Your task to perform on an android device: Check the weather Image 0: 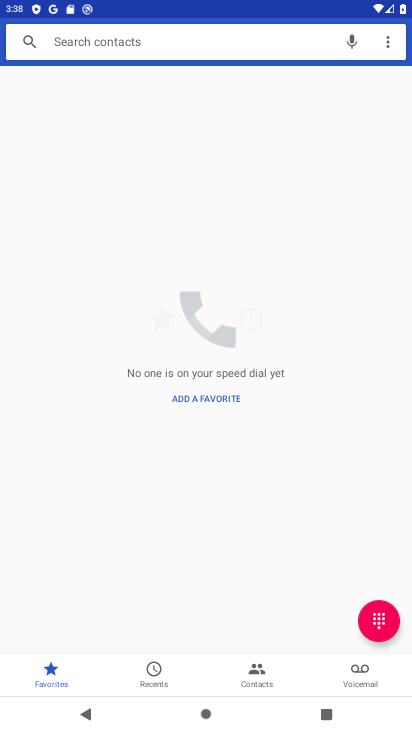
Step 0: press home button
Your task to perform on an android device: Check the weather Image 1: 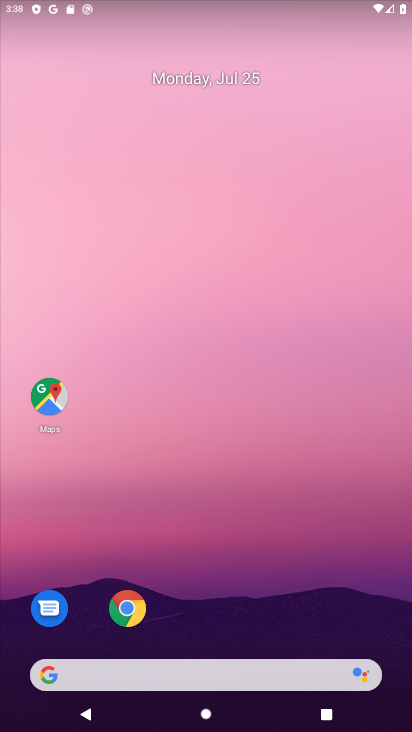
Step 1: click (123, 603)
Your task to perform on an android device: Check the weather Image 2: 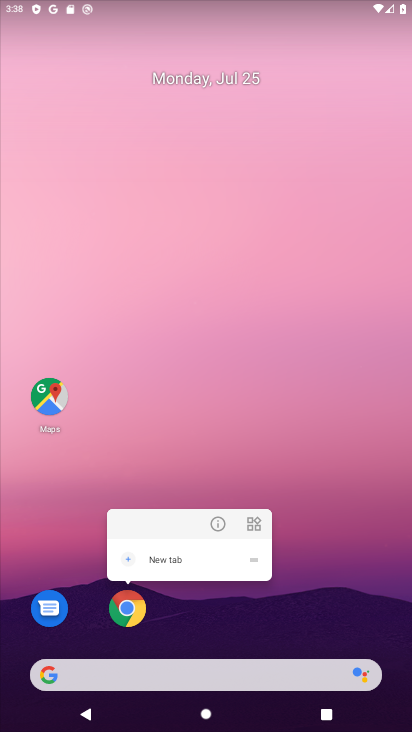
Step 2: click (123, 603)
Your task to perform on an android device: Check the weather Image 3: 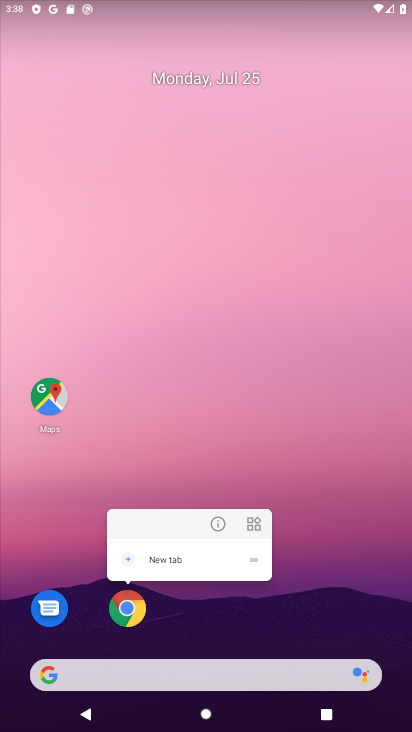
Step 3: click (123, 603)
Your task to perform on an android device: Check the weather Image 4: 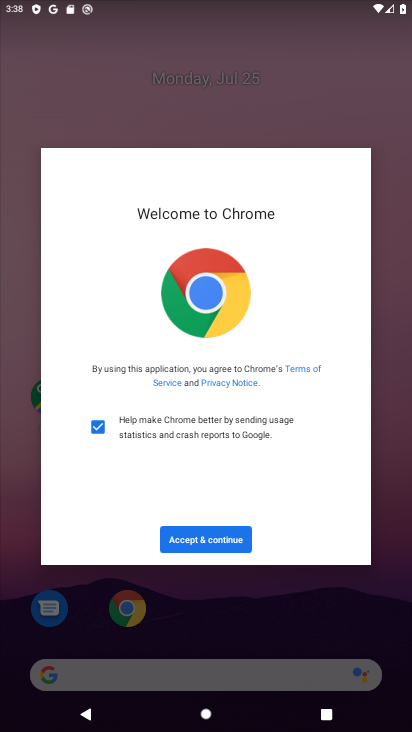
Step 4: click (203, 534)
Your task to perform on an android device: Check the weather Image 5: 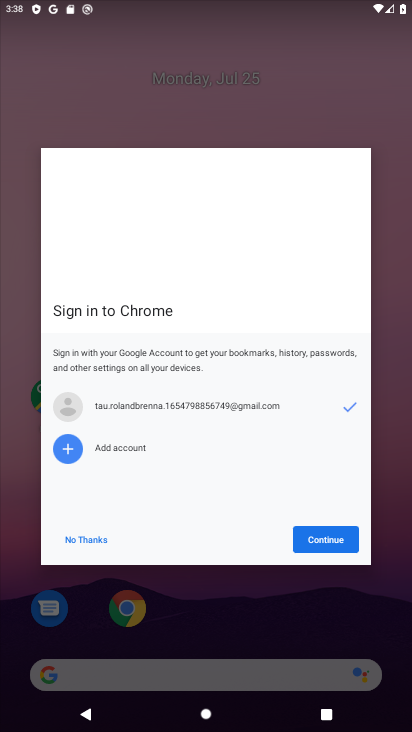
Step 5: press home button
Your task to perform on an android device: Check the weather Image 6: 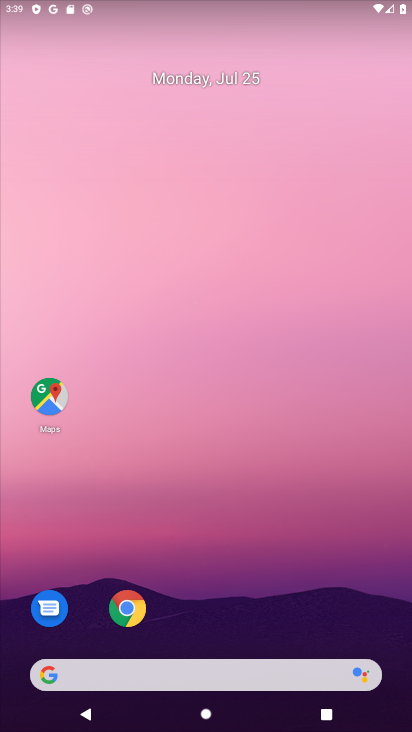
Step 6: click (178, 670)
Your task to perform on an android device: Check the weather Image 7: 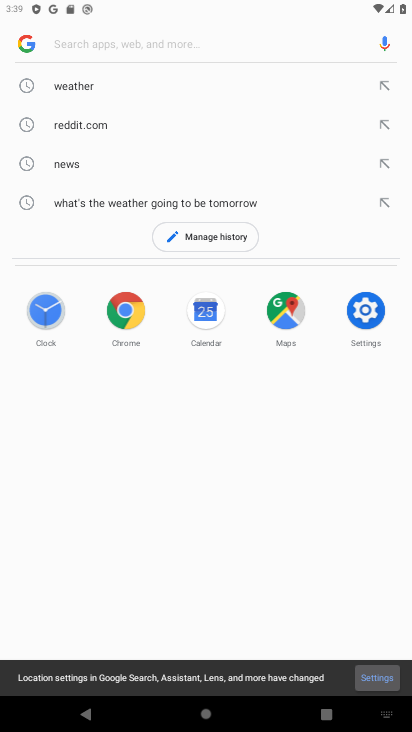
Step 7: click (98, 80)
Your task to perform on an android device: Check the weather Image 8: 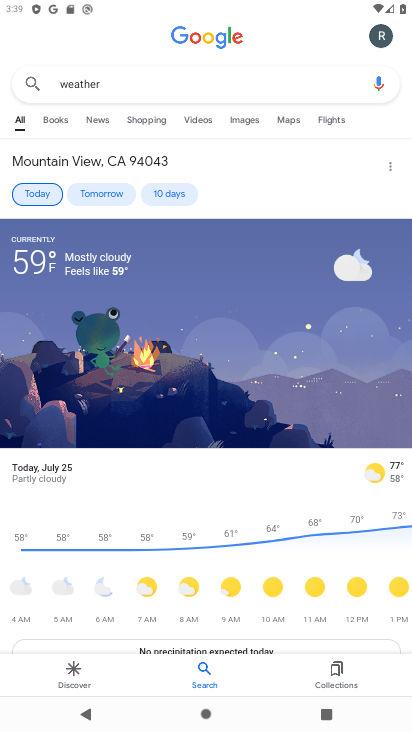
Step 8: task complete